Your task to perform on an android device: Empty the shopping cart on walmart.com. Image 0: 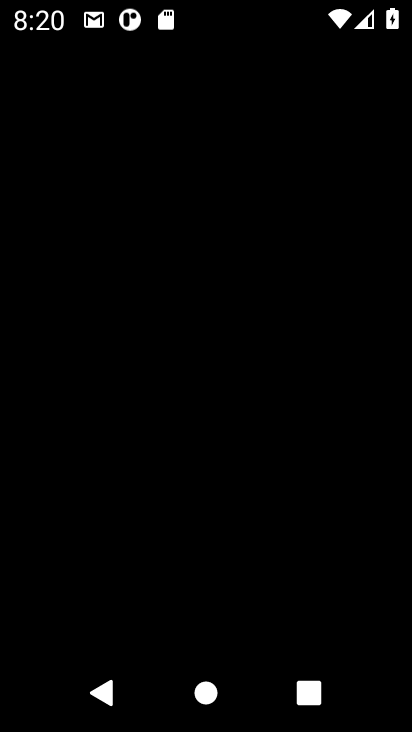
Step 0: press home button
Your task to perform on an android device: Empty the shopping cart on walmart.com. Image 1: 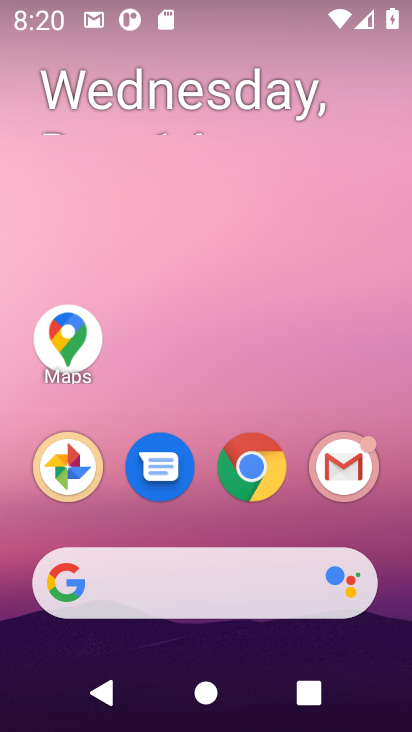
Step 1: click (268, 447)
Your task to perform on an android device: Empty the shopping cart on walmart.com. Image 2: 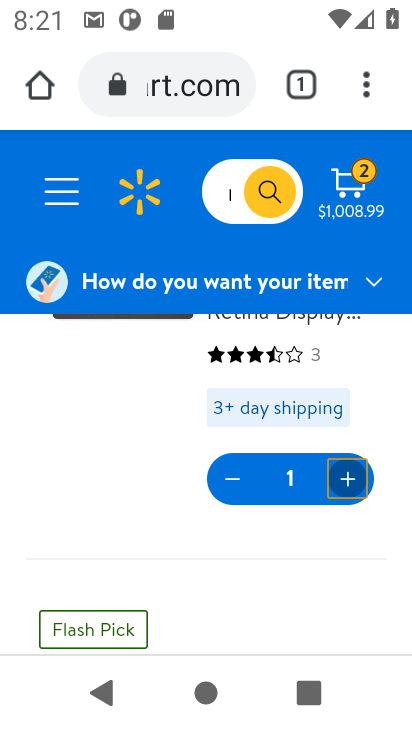
Step 2: click (360, 217)
Your task to perform on an android device: Empty the shopping cart on walmart.com. Image 3: 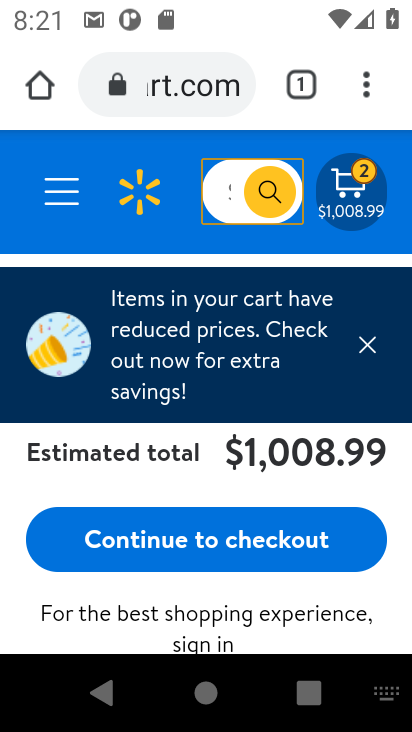
Step 3: click (362, 348)
Your task to perform on an android device: Empty the shopping cart on walmart.com. Image 4: 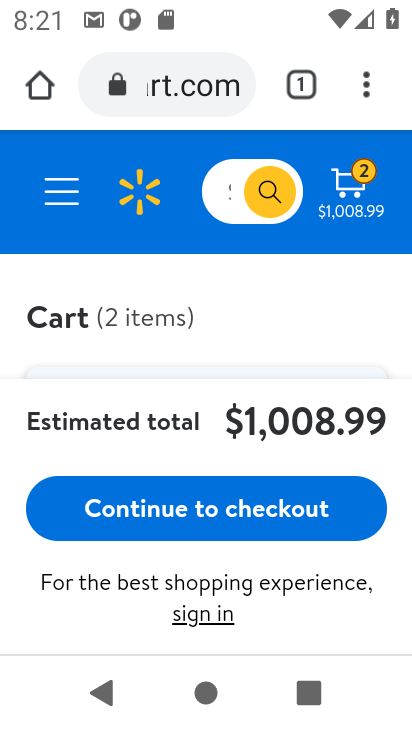
Step 4: drag from (262, 368) to (252, 142)
Your task to perform on an android device: Empty the shopping cart on walmart.com. Image 5: 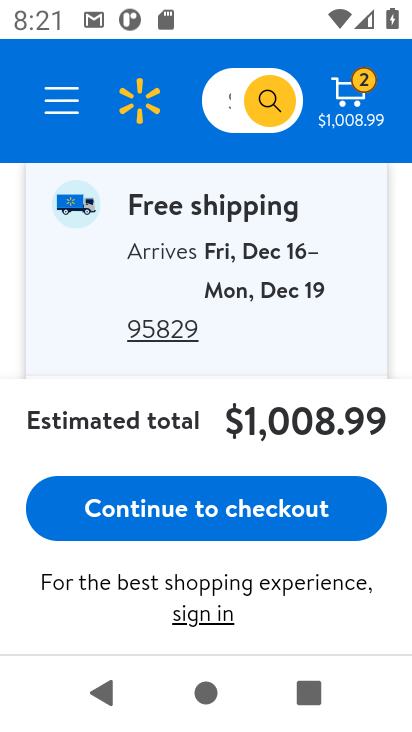
Step 5: drag from (285, 330) to (281, 162)
Your task to perform on an android device: Empty the shopping cart on walmart.com. Image 6: 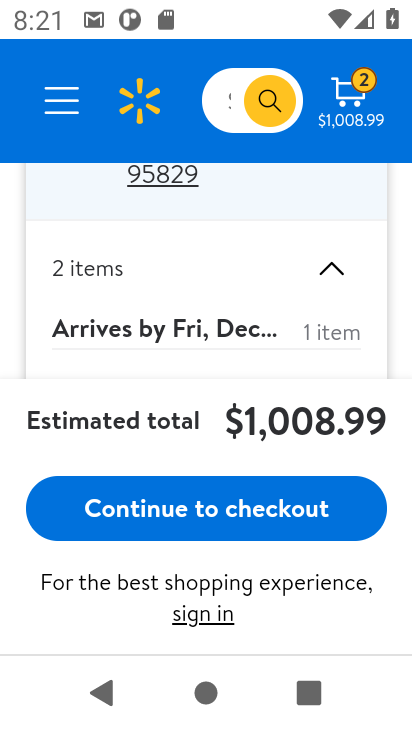
Step 6: drag from (221, 341) to (221, 176)
Your task to perform on an android device: Empty the shopping cart on walmart.com. Image 7: 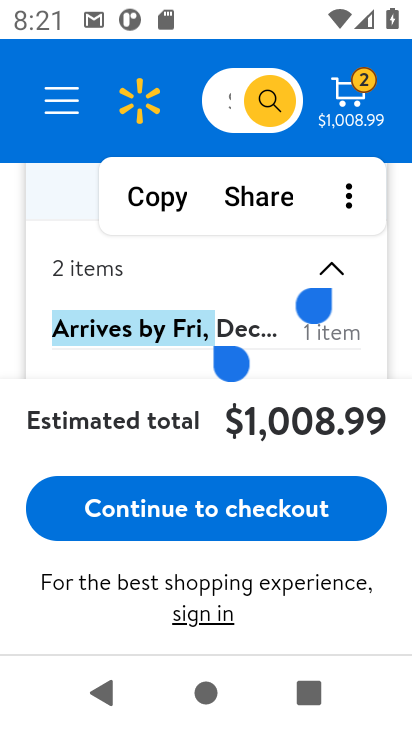
Step 7: click (205, 282)
Your task to perform on an android device: Empty the shopping cart on walmart.com. Image 8: 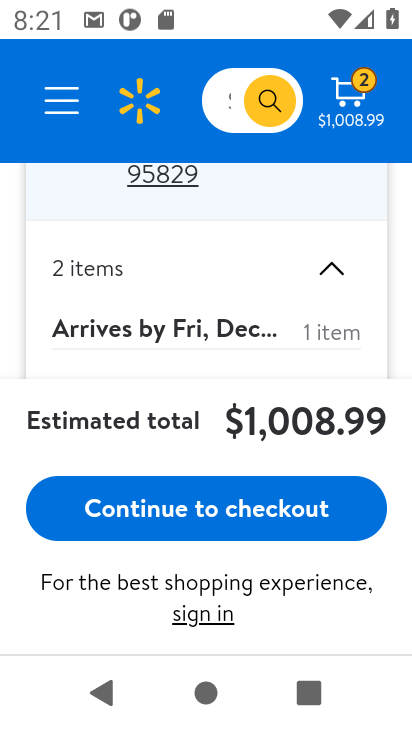
Step 8: drag from (276, 364) to (260, 191)
Your task to perform on an android device: Empty the shopping cart on walmart.com. Image 9: 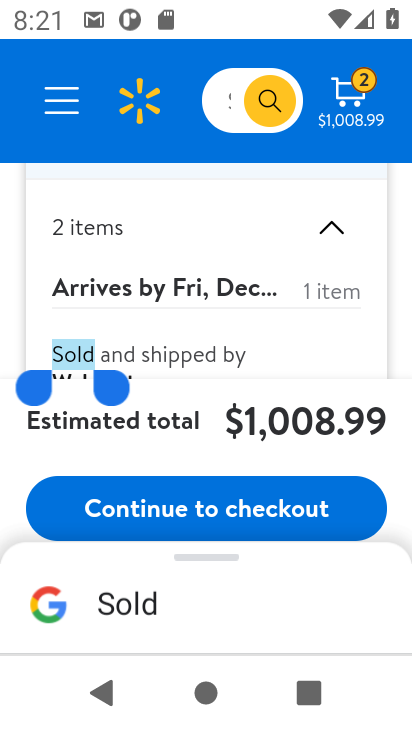
Step 9: click (285, 349)
Your task to perform on an android device: Empty the shopping cart on walmart.com. Image 10: 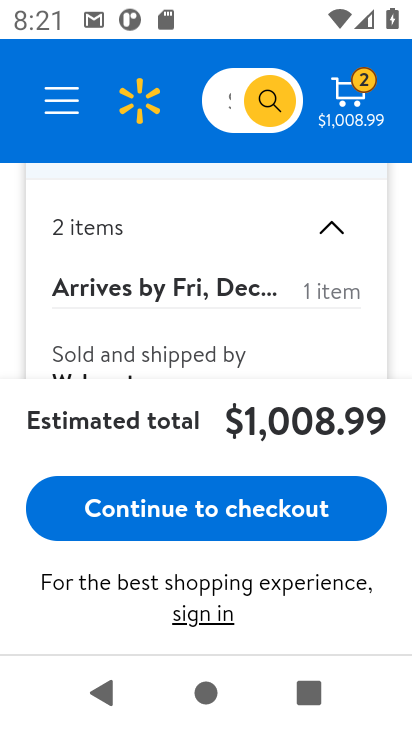
Step 10: task complete